Your task to perform on an android device: Search for pizza restaurants on Maps Image 0: 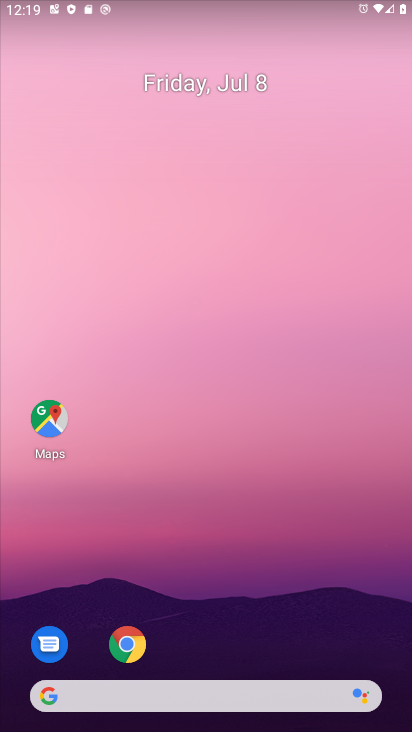
Step 0: click (60, 413)
Your task to perform on an android device: Search for pizza restaurants on Maps Image 1: 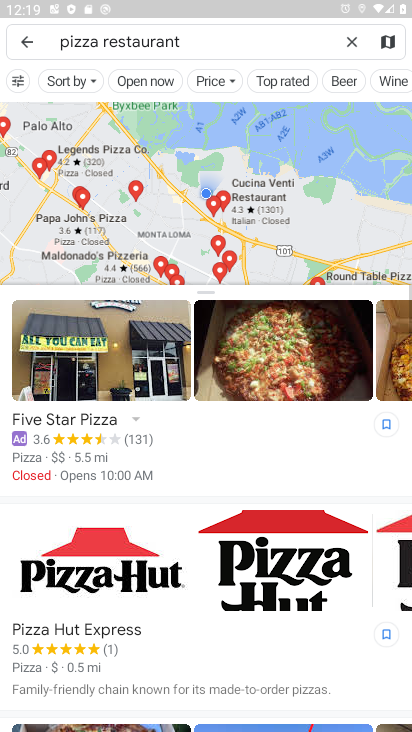
Step 1: task complete